Your task to perform on an android device: Search for seafood restaurants on Google Maps Image 0: 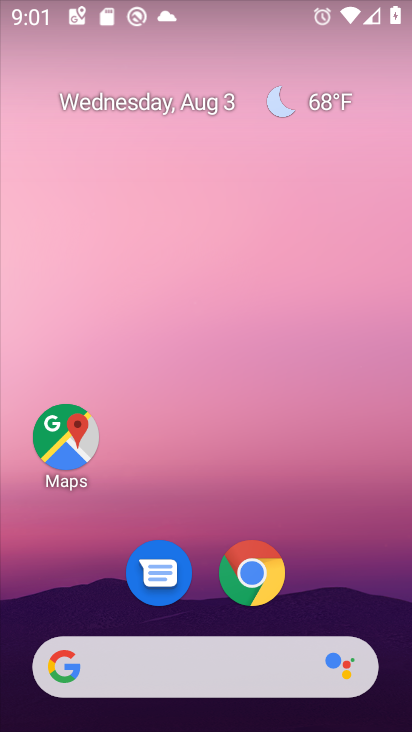
Step 0: click (67, 439)
Your task to perform on an android device: Search for seafood restaurants on Google Maps Image 1: 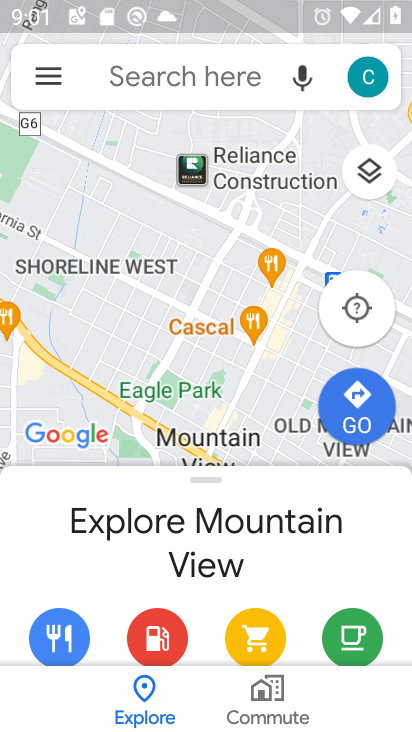
Step 1: click (125, 84)
Your task to perform on an android device: Search for seafood restaurants on Google Maps Image 2: 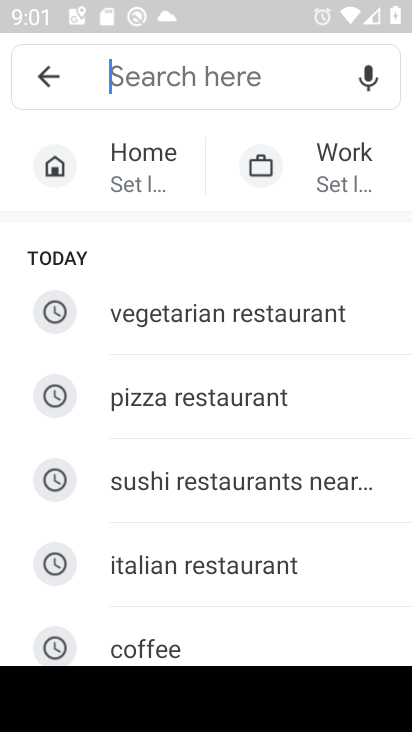
Step 2: type "seafood restaurants"
Your task to perform on an android device: Search for seafood restaurants on Google Maps Image 3: 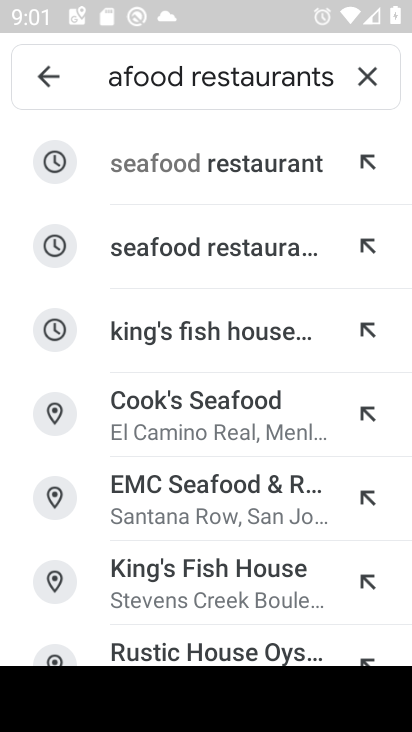
Step 3: click (169, 166)
Your task to perform on an android device: Search for seafood restaurants on Google Maps Image 4: 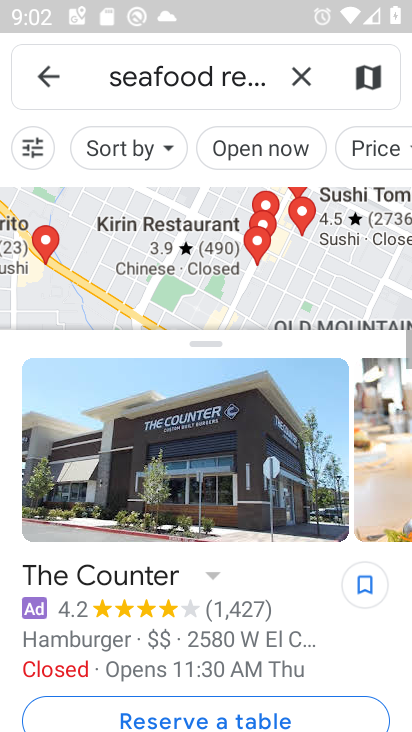
Step 4: task complete